Your task to perform on an android device: Clear the shopping cart on amazon.com. Search for lg ultragear on amazon.com, select the first entry, add it to the cart, then select checkout. Image 0: 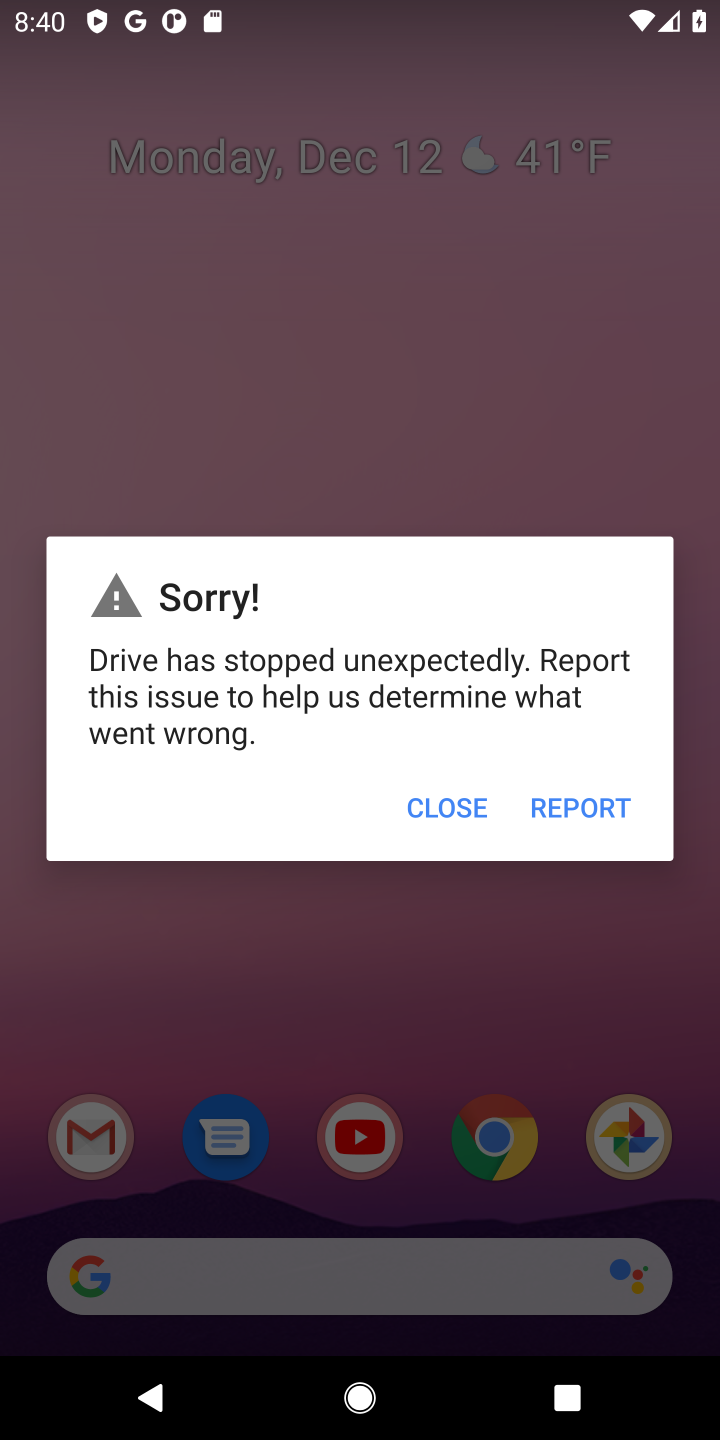
Step 0: click (442, 810)
Your task to perform on an android device: Clear the shopping cart on amazon.com. Search for lg ultragear on amazon.com, select the first entry, add it to the cart, then select checkout. Image 1: 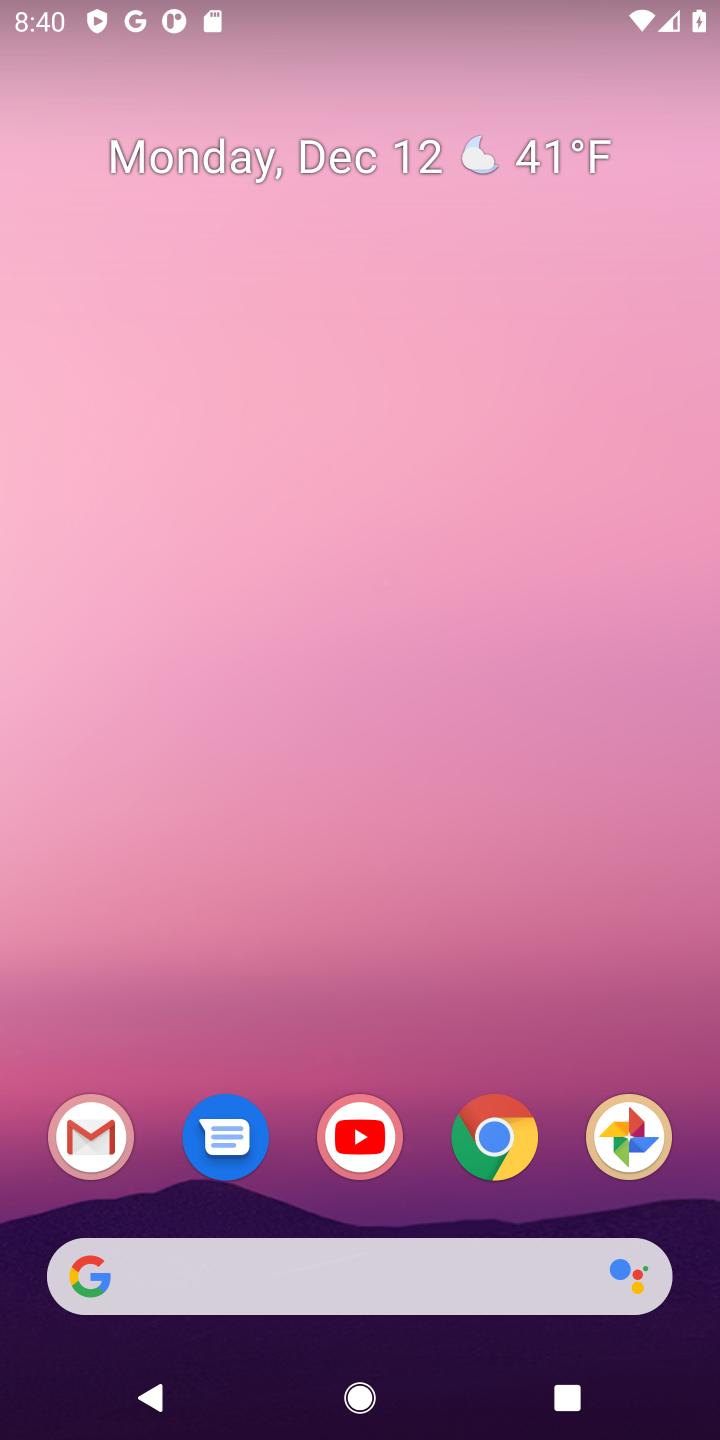
Step 1: click (491, 1126)
Your task to perform on an android device: Clear the shopping cart on amazon.com. Search for lg ultragear on amazon.com, select the first entry, add it to the cart, then select checkout. Image 2: 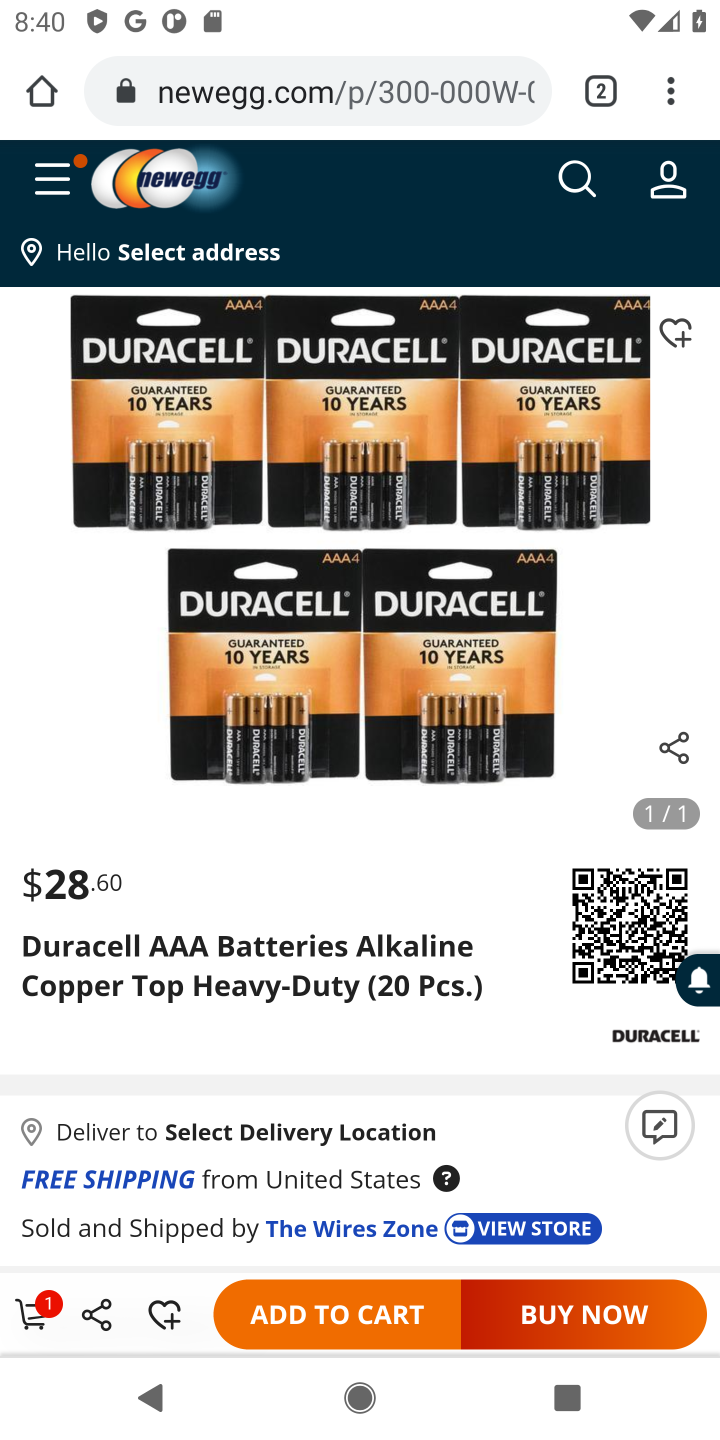
Step 2: click (351, 90)
Your task to perform on an android device: Clear the shopping cart on amazon.com. Search for lg ultragear on amazon.com, select the first entry, add it to the cart, then select checkout. Image 3: 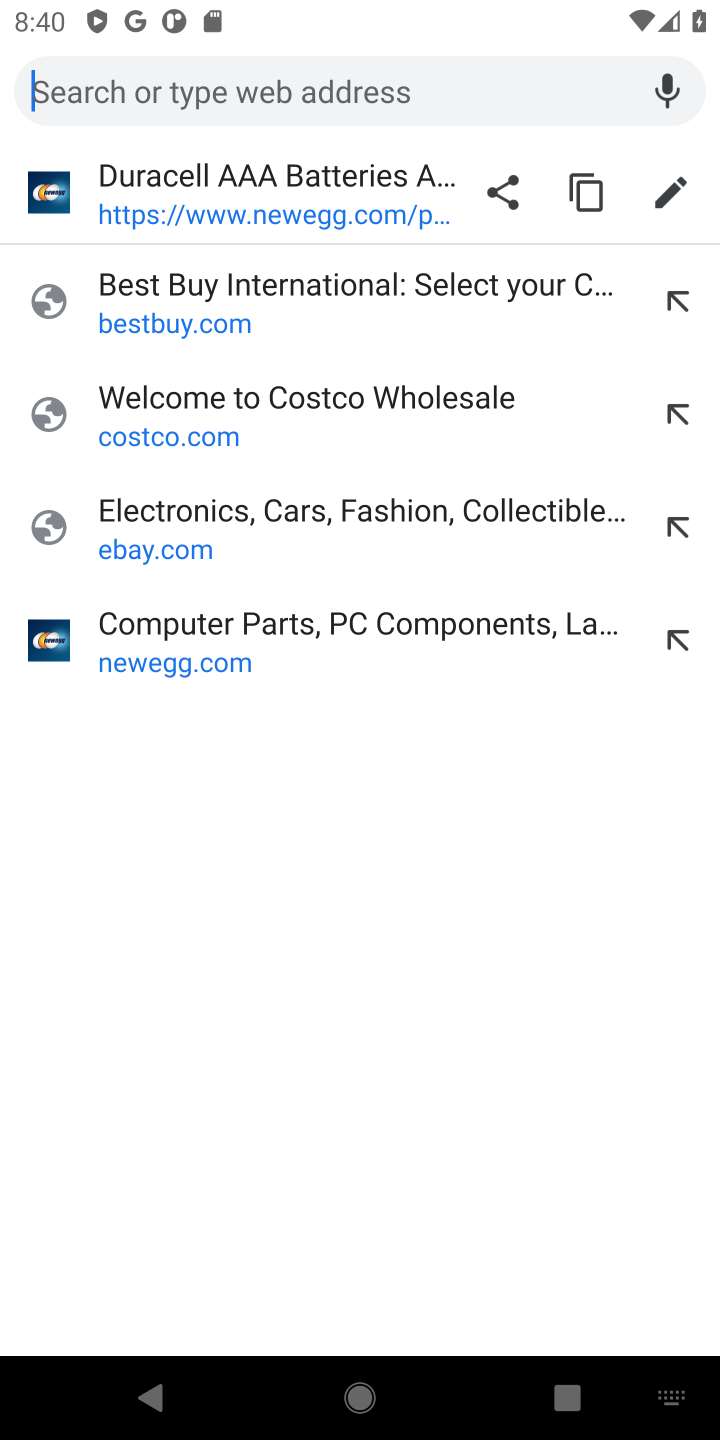
Step 3: type "amazon"
Your task to perform on an android device: Clear the shopping cart on amazon.com. Search for lg ultragear on amazon.com, select the first entry, add it to the cart, then select checkout. Image 4: 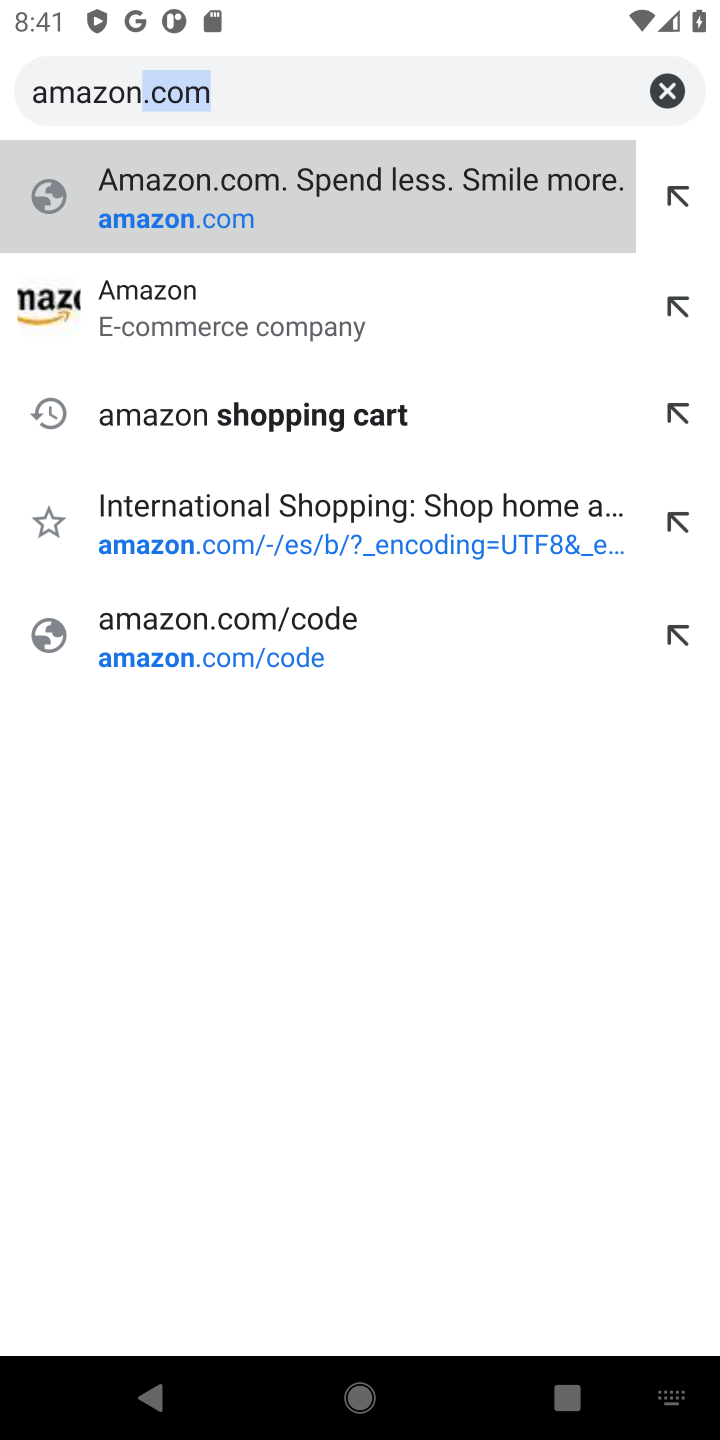
Step 4: click (273, 207)
Your task to perform on an android device: Clear the shopping cart on amazon.com. Search for lg ultragear on amazon.com, select the first entry, add it to the cart, then select checkout. Image 5: 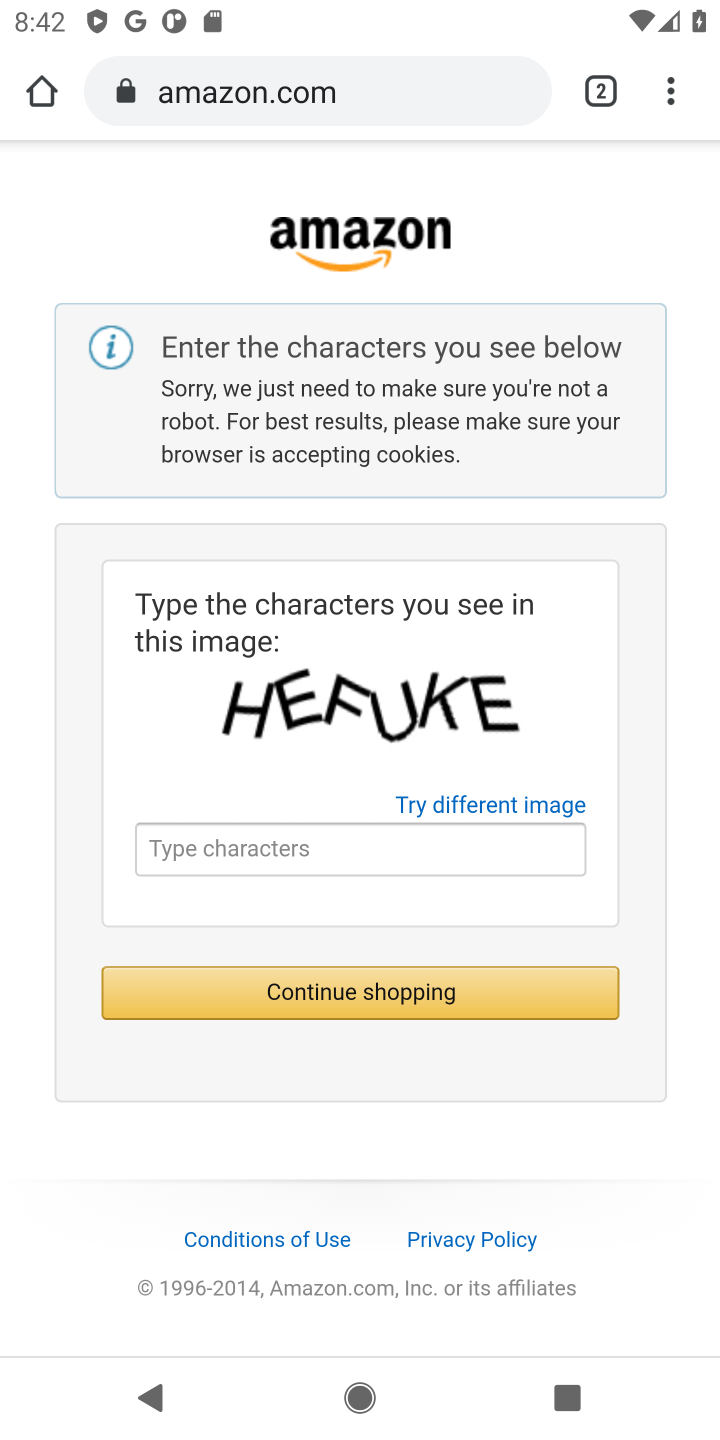
Step 5: click (374, 850)
Your task to perform on an android device: Clear the shopping cart on amazon.com. Search for lg ultragear on amazon.com, select the first entry, add it to the cart, then select checkout. Image 6: 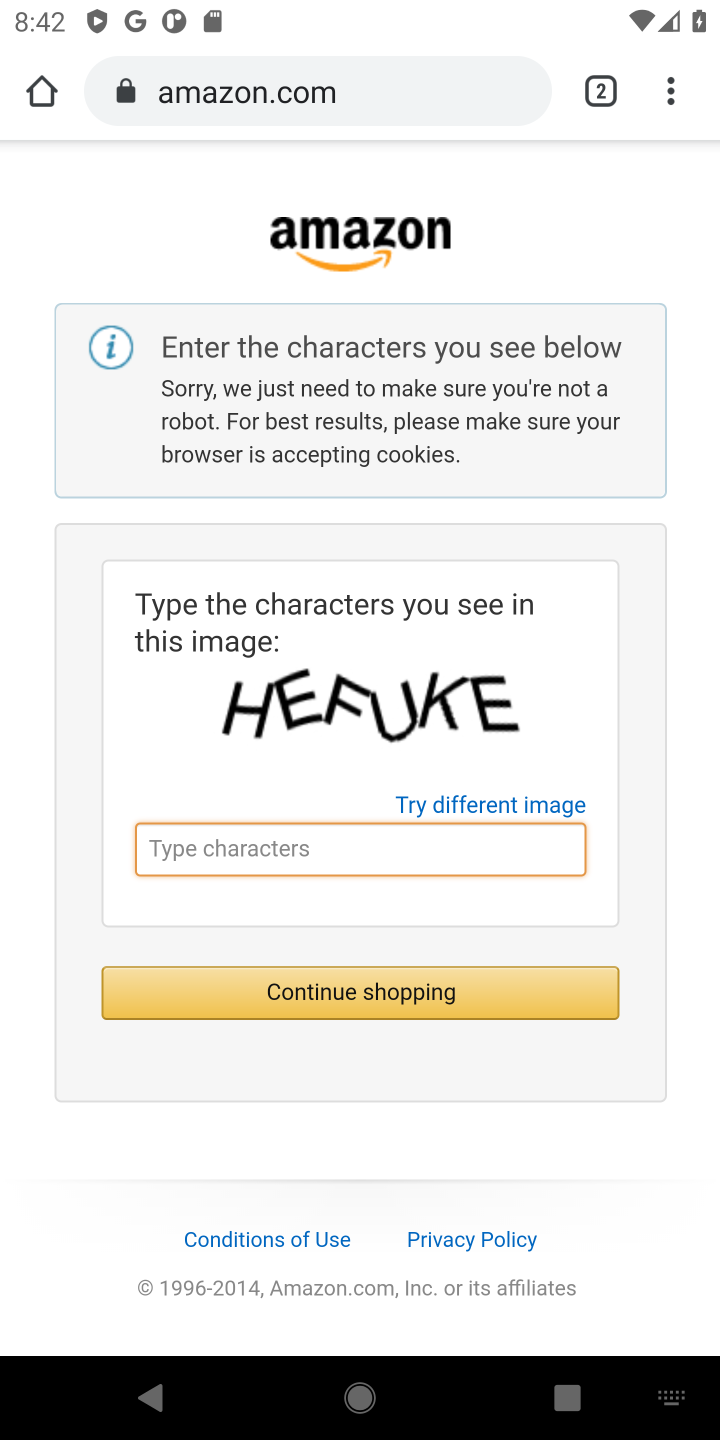
Step 6: type "HEFUKE"
Your task to perform on an android device: Clear the shopping cart on amazon.com. Search for lg ultragear on amazon.com, select the first entry, add it to the cart, then select checkout. Image 7: 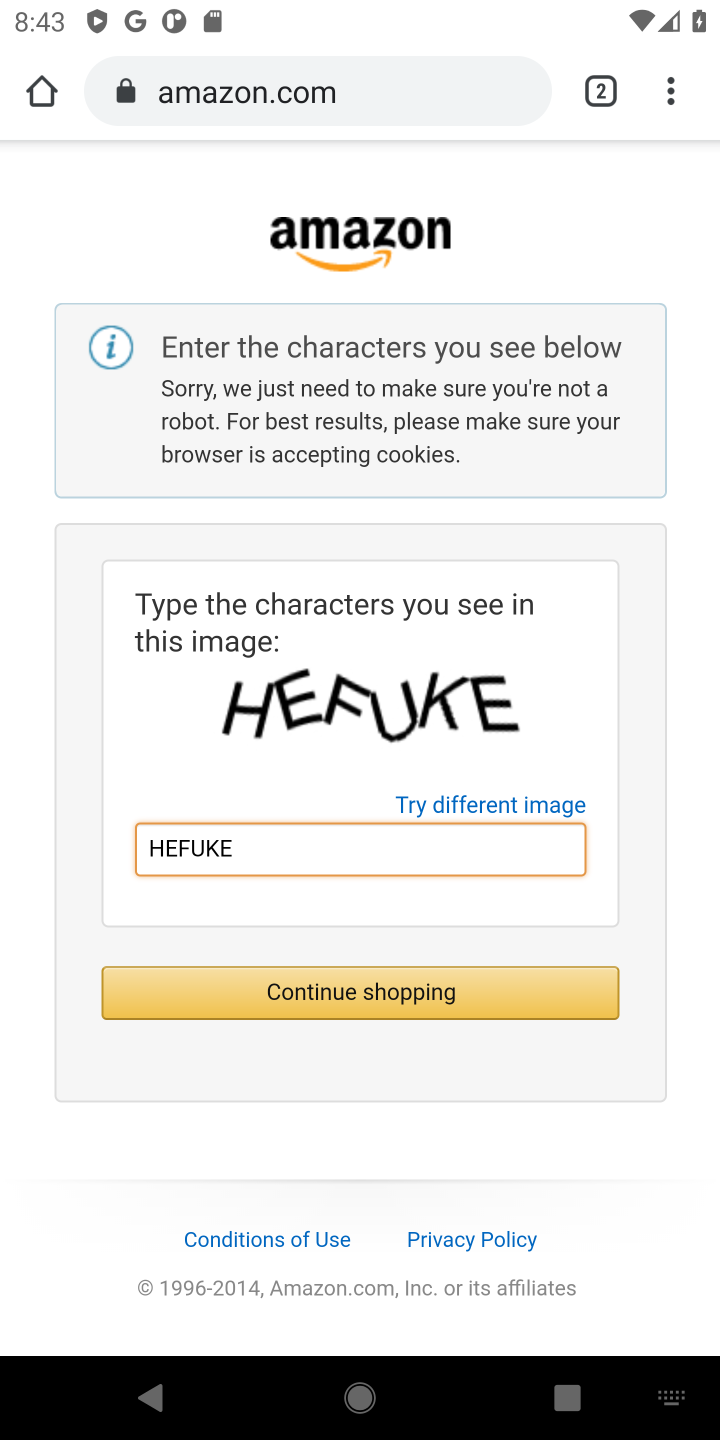
Step 7: click (420, 986)
Your task to perform on an android device: Clear the shopping cart on amazon.com. Search for lg ultragear on amazon.com, select the first entry, add it to the cart, then select checkout. Image 8: 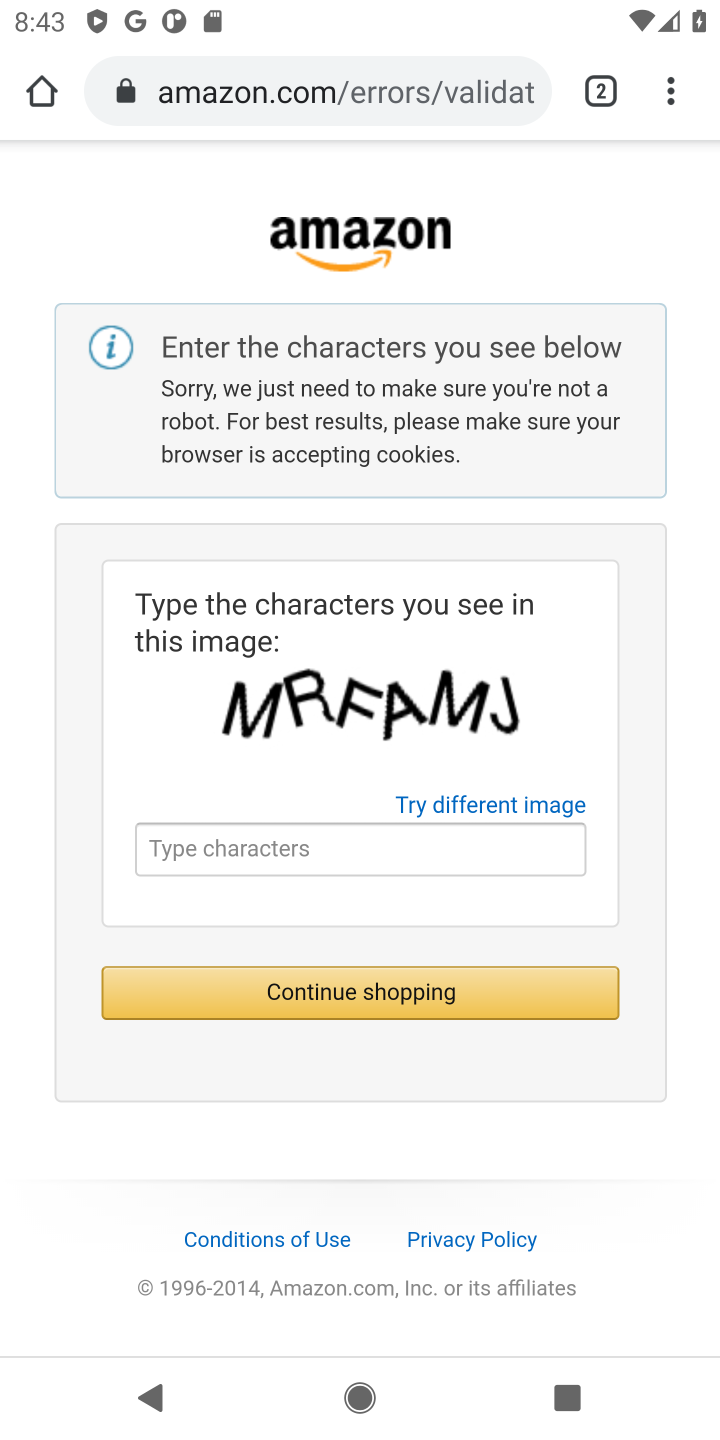
Step 8: click (387, 847)
Your task to perform on an android device: Clear the shopping cart on amazon.com. Search for lg ultragear on amazon.com, select the first entry, add it to the cart, then select checkout. Image 9: 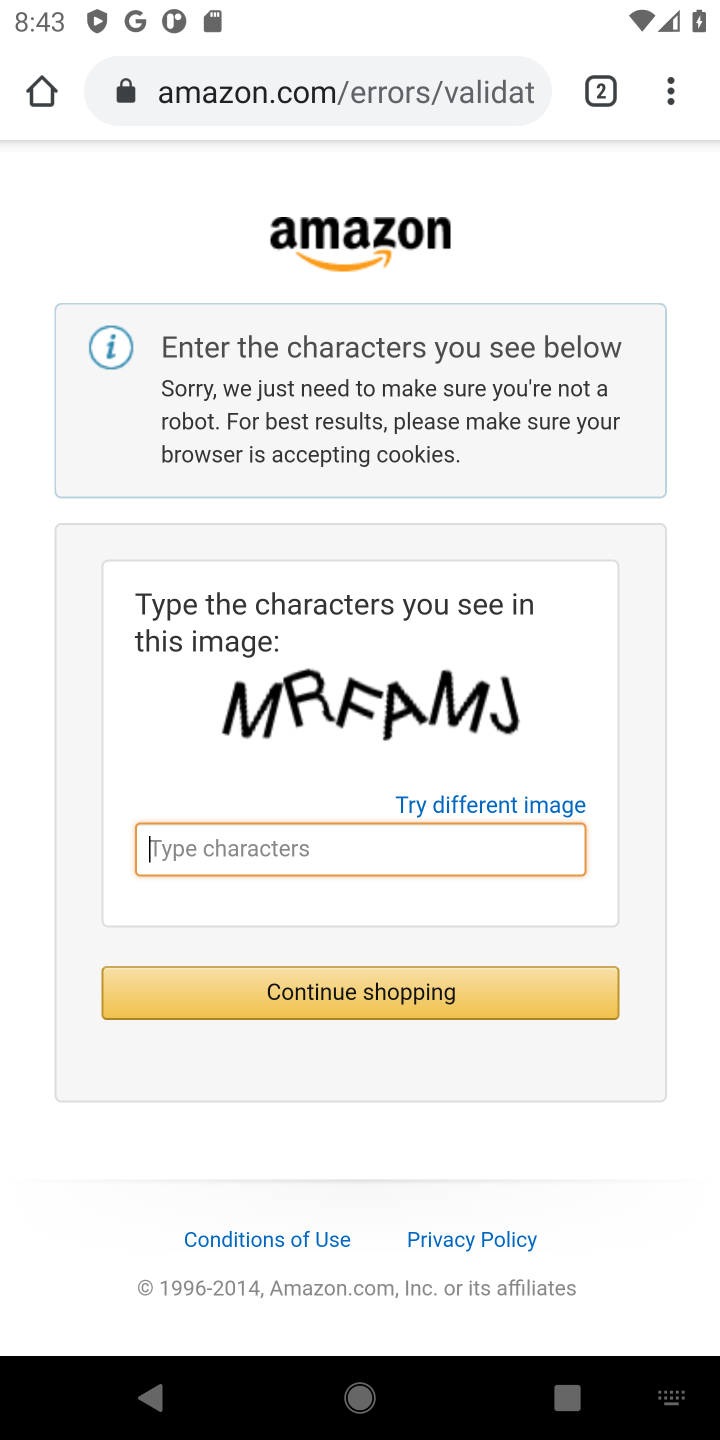
Step 9: type "MRFAMJ"
Your task to perform on an android device: Clear the shopping cart on amazon.com. Search for lg ultragear on amazon.com, select the first entry, add it to the cart, then select checkout. Image 10: 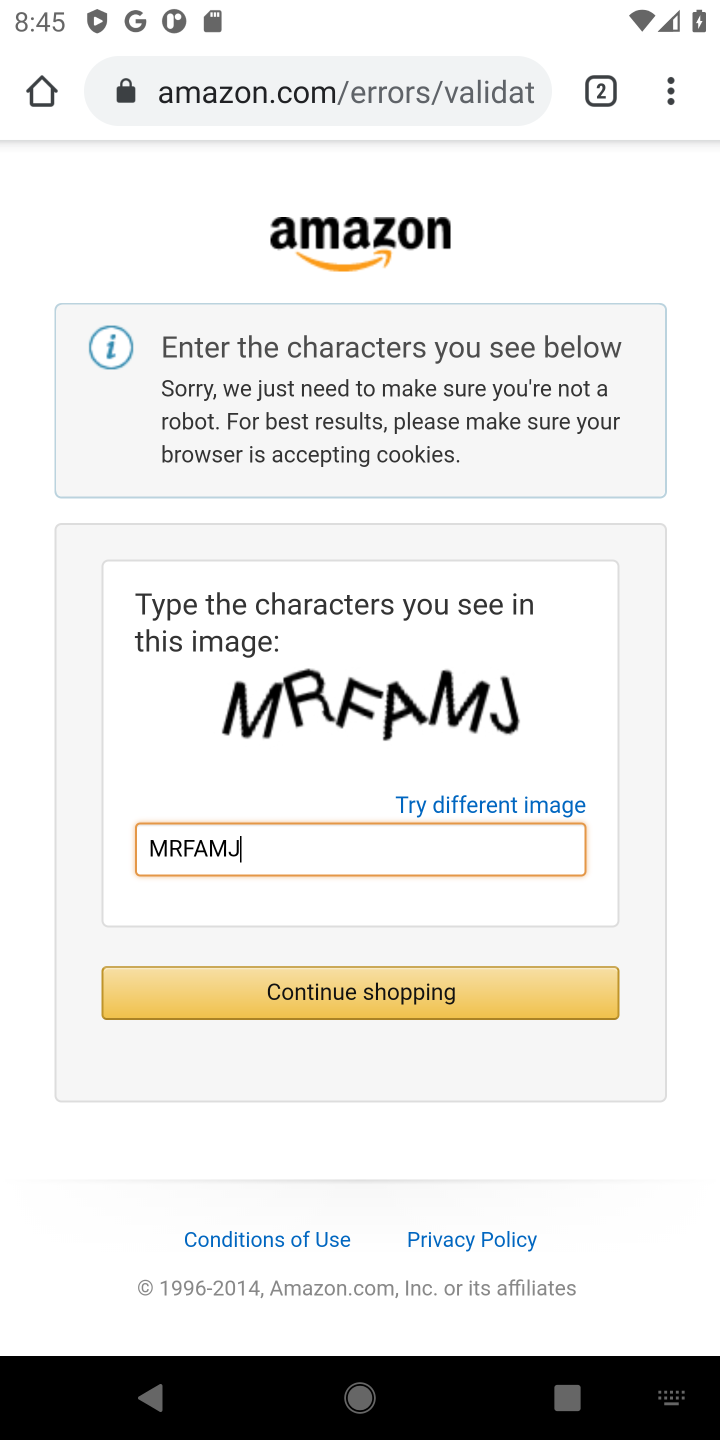
Step 10: click (419, 984)
Your task to perform on an android device: Clear the shopping cart on amazon.com. Search for lg ultragear on amazon.com, select the first entry, add it to the cart, then select checkout. Image 11: 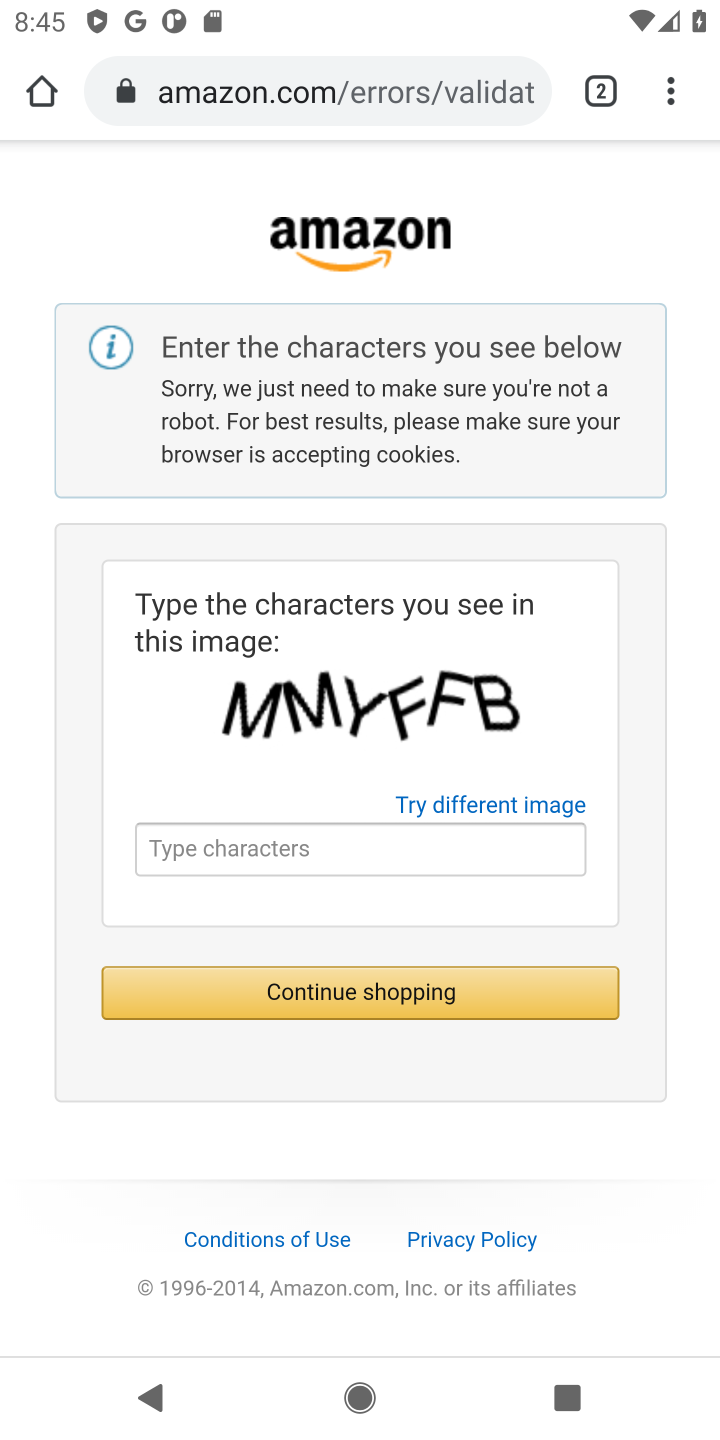
Step 11: task complete